Your task to perform on an android device: Open the web browser Image 0: 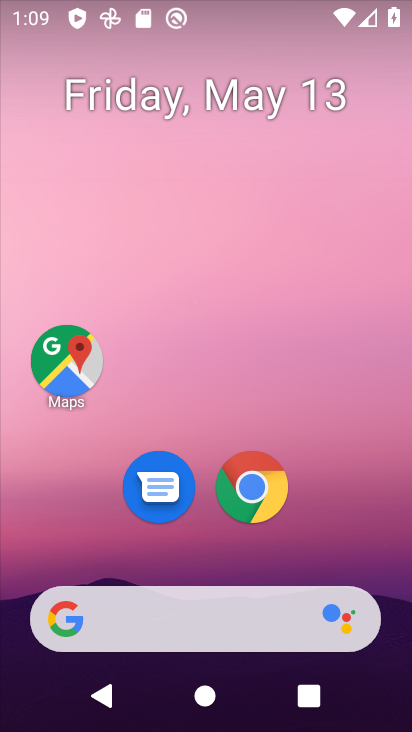
Step 0: drag from (309, 519) to (286, 136)
Your task to perform on an android device: Open the web browser Image 1: 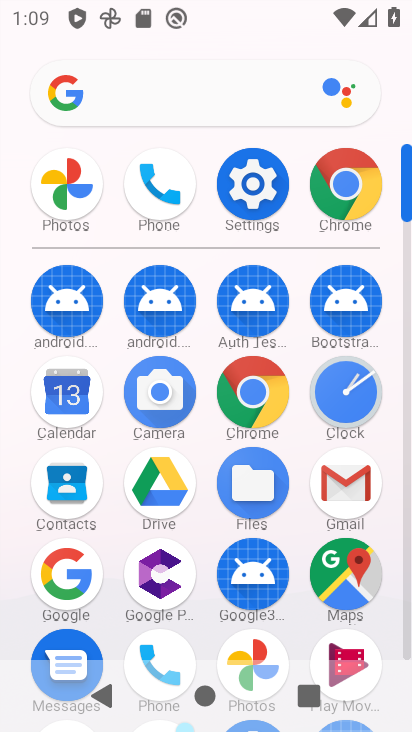
Step 1: click (253, 377)
Your task to perform on an android device: Open the web browser Image 2: 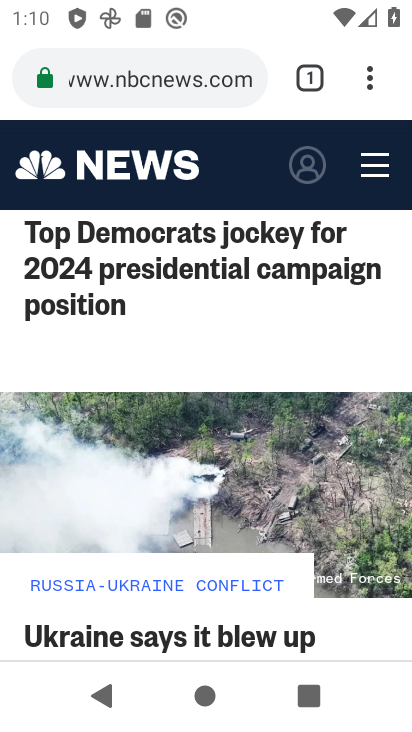
Step 2: task complete